Your task to perform on an android device: Go to Android settings Image 0: 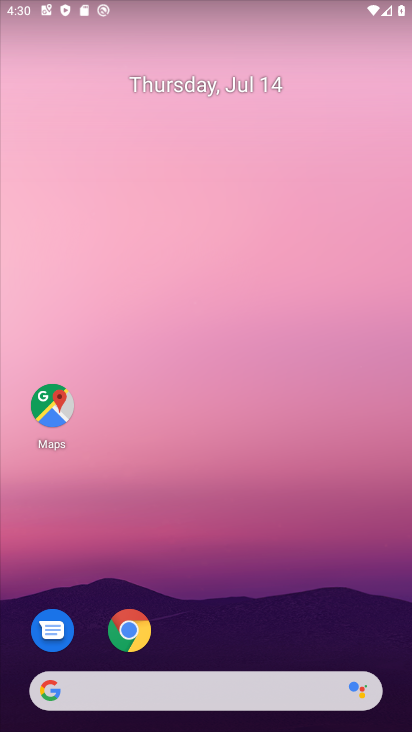
Step 0: drag from (239, 551) to (258, 196)
Your task to perform on an android device: Go to Android settings Image 1: 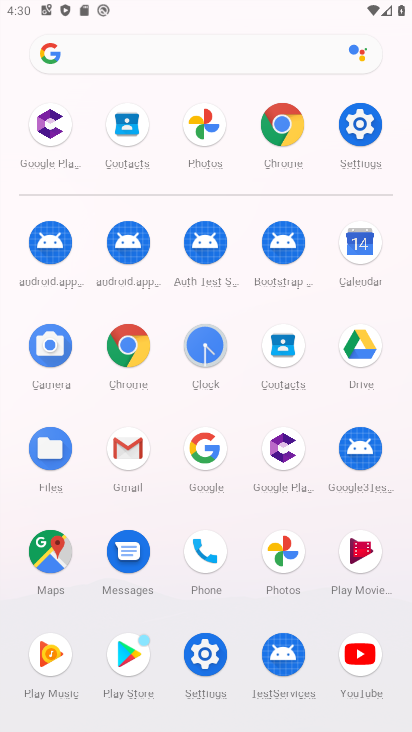
Step 1: click (356, 130)
Your task to perform on an android device: Go to Android settings Image 2: 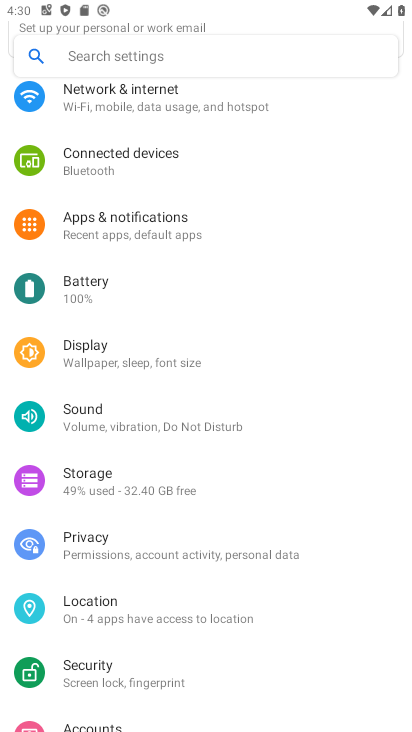
Step 2: drag from (175, 684) to (247, 206)
Your task to perform on an android device: Go to Android settings Image 3: 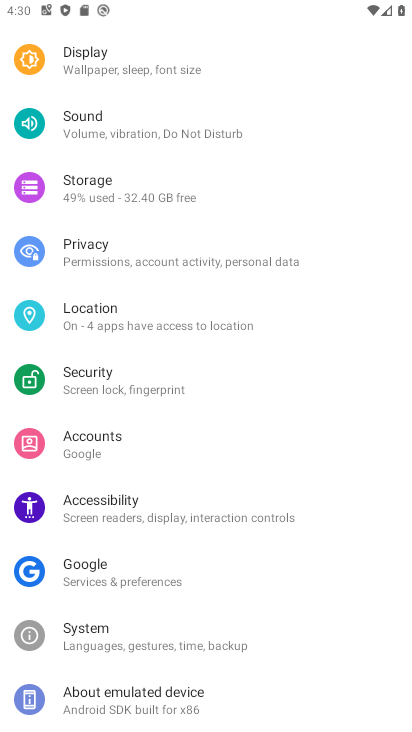
Step 3: click (198, 694)
Your task to perform on an android device: Go to Android settings Image 4: 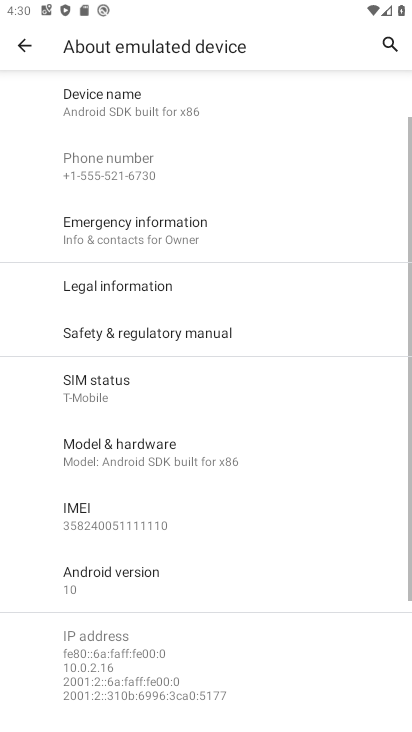
Step 4: task complete